Your task to perform on an android device: Turn off the flashlight Image 0: 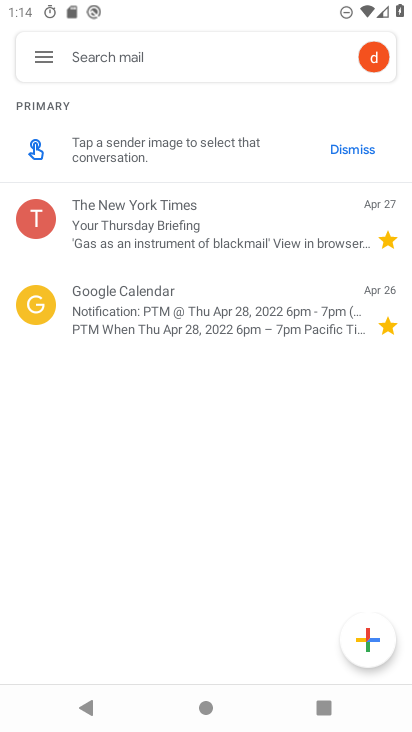
Step 0: press home button
Your task to perform on an android device: Turn off the flashlight Image 1: 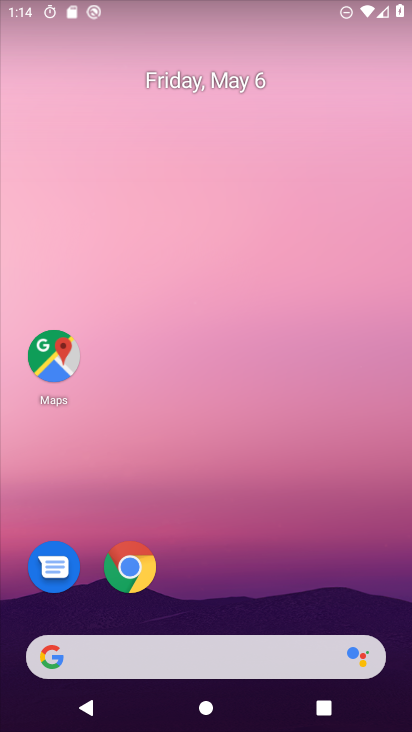
Step 1: drag from (268, 685) to (252, 258)
Your task to perform on an android device: Turn off the flashlight Image 2: 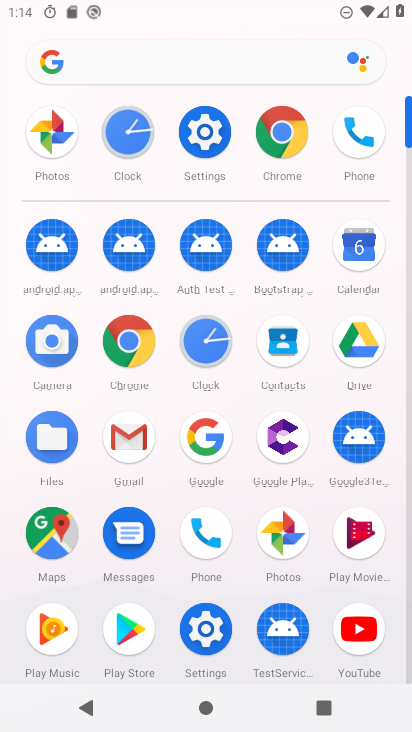
Step 2: click (209, 127)
Your task to perform on an android device: Turn off the flashlight Image 3: 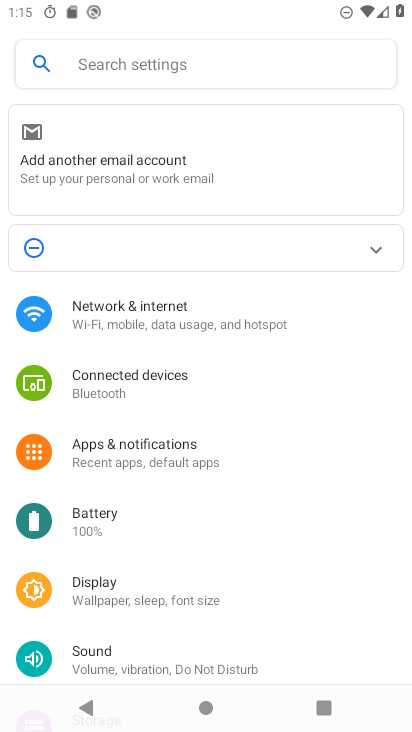
Step 3: click (152, 68)
Your task to perform on an android device: Turn off the flashlight Image 4: 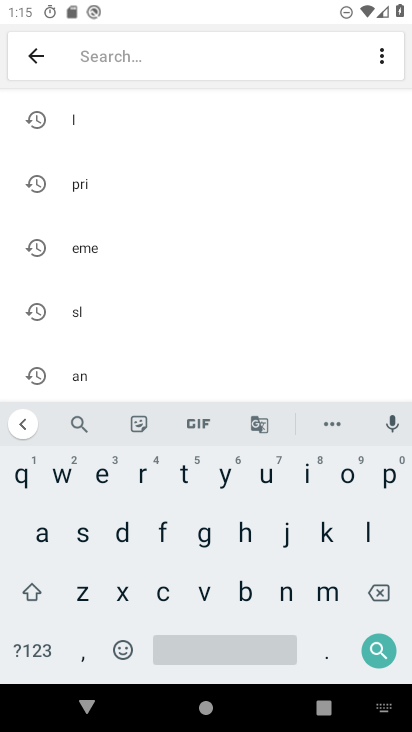
Step 4: click (161, 538)
Your task to perform on an android device: Turn off the flashlight Image 5: 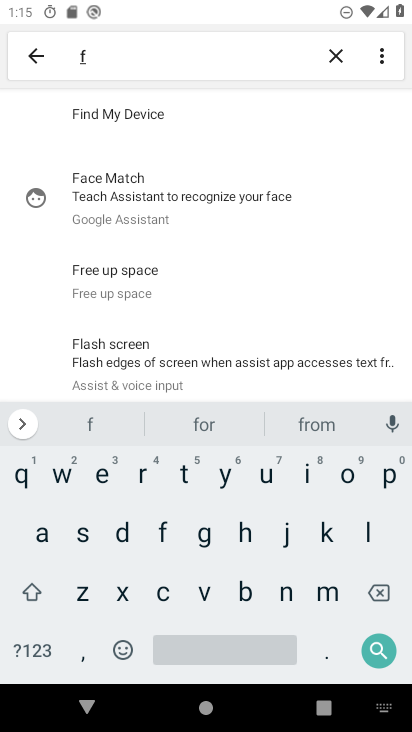
Step 5: click (364, 535)
Your task to perform on an android device: Turn off the flashlight Image 6: 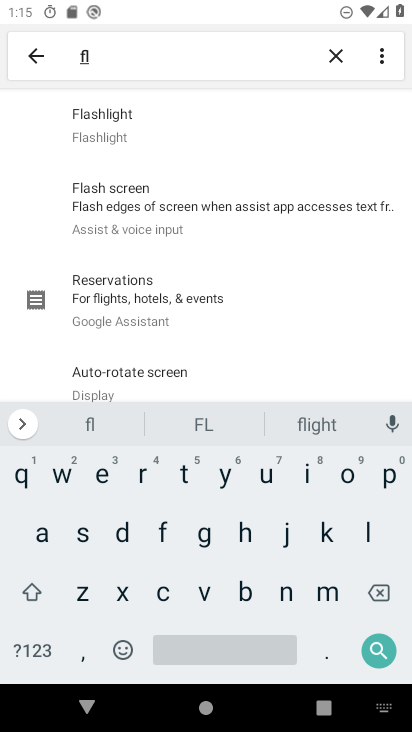
Step 6: click (155, 125)
Your task to perform on an android device: Turn off the flashlight Image 7: 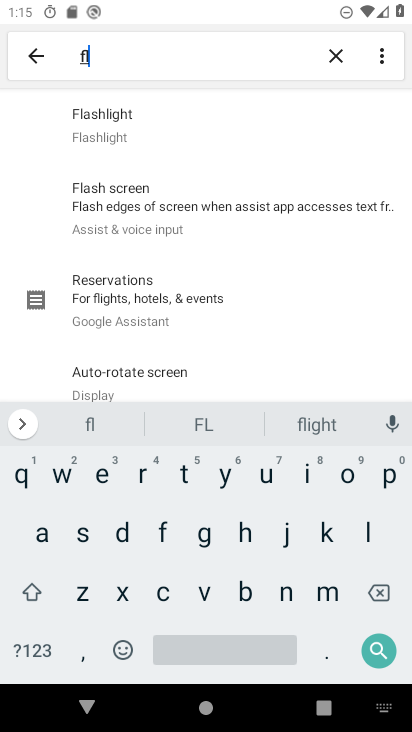
Step 7: click (155, 125)
Your task to perform on an android device: Turn off the flashlight Image 8: 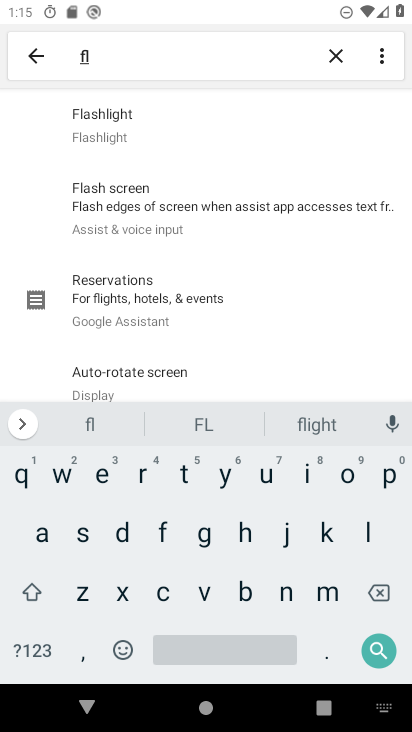
Step 8: task complete